Your task to perform on an android device: open app "Roku - Official Remote Control" Image 0: 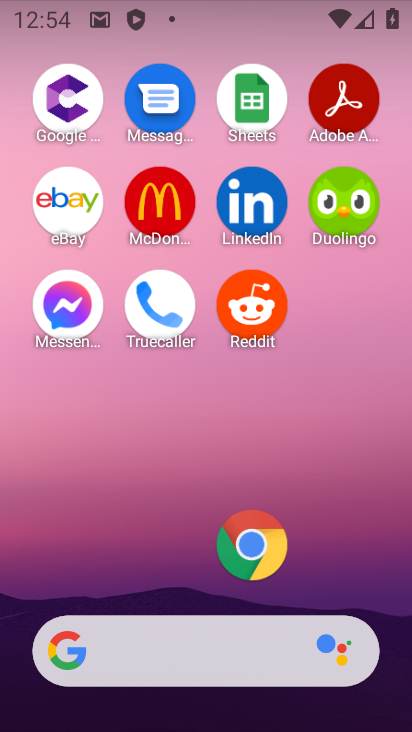
Step 0: drag from (119, 546) to (211, 23)
Your task to perform on an android device: open app "Roku - Official Remote Control" Image 1: 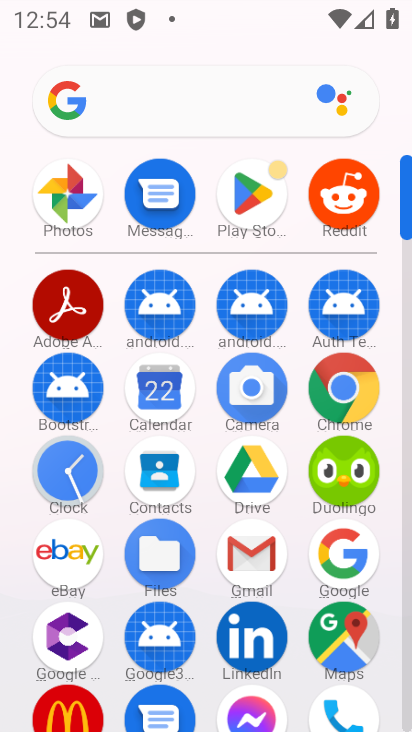
Step 1: click (244, 182)
Your task to perform on an android device: open app "Roku - Official Remote Control" Image 2: 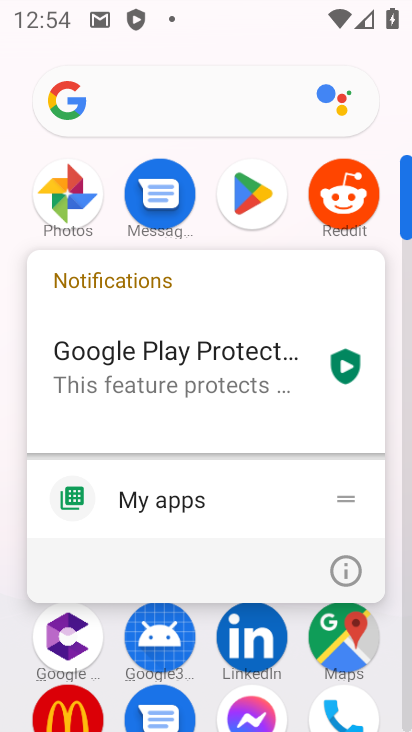
Step 2: click (254, 193)
Your task to perform on an android device: open app "Roku - Official Remote Control" Image 3: 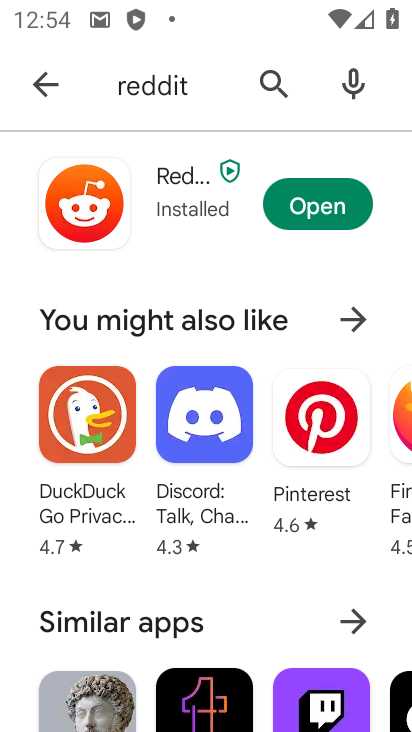
Step 3: click (274, 67)
Your task to perform on an android device: open app "Roku - Official Remote Control" Image 4: 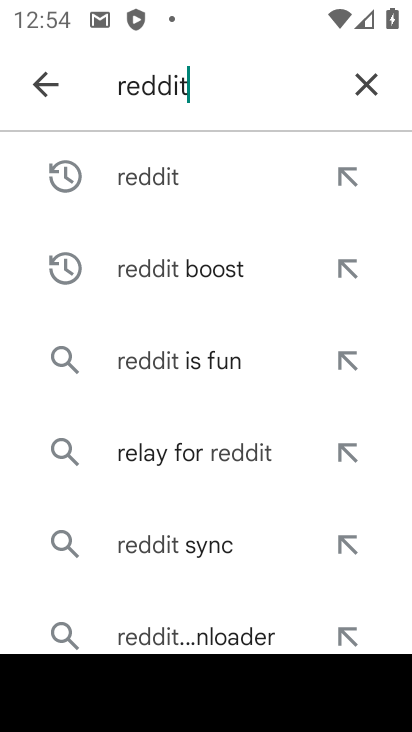
Step 4: click (371, 80)
Your task to perform on an android device: open app "Roku - Official Remote Control" Image 5: 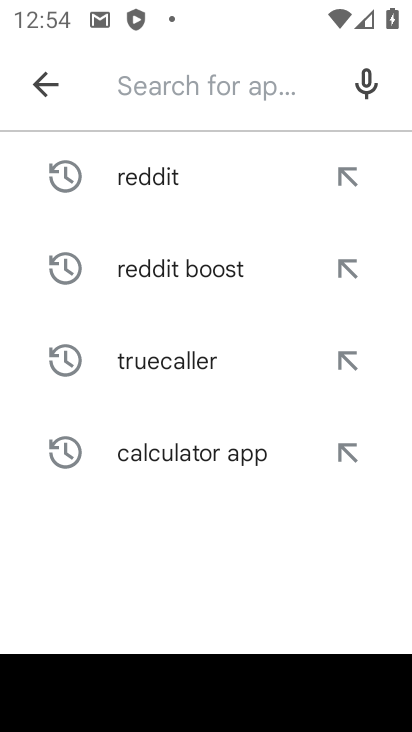
Step 5: click (161, 91)
Your task to perform on an android device: open app "Roku - Official Remote Control" Image 6: 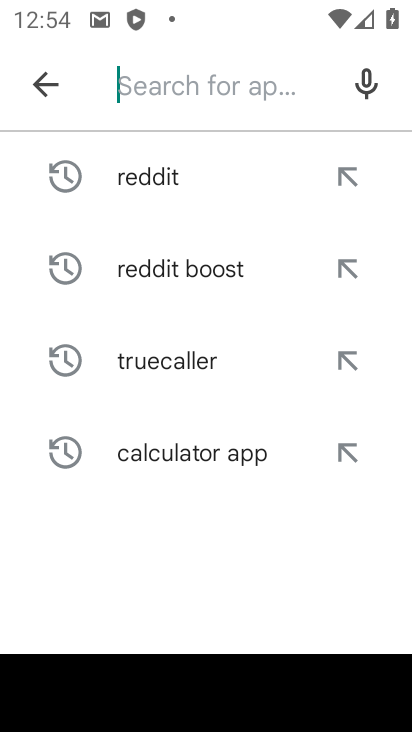
Step 6: type "roku"
Your task to perform on an android device: open app "Roku - Official Remote Control" Image 7: 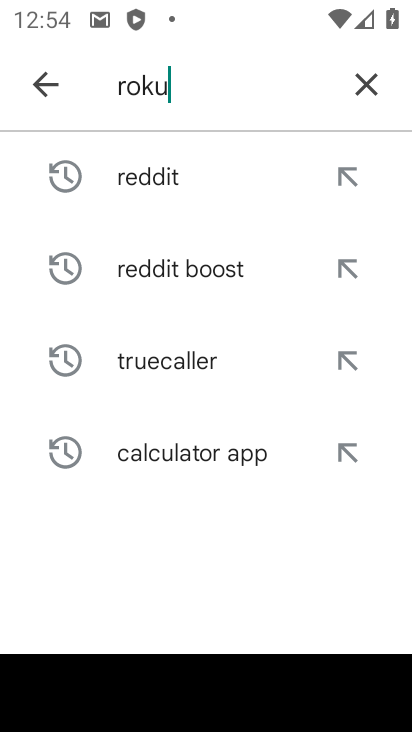
Step 7: click (170, 82)
Your task to perform on an android device: open app "Roku - Official Remote Control" Image 8: 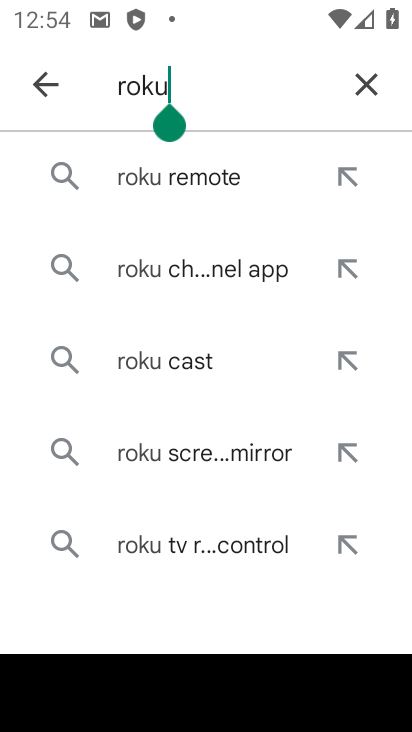
Step 8: click (191, 164)
Your task to perform on an android device: open app "Roku - Official Remote Control" Image 9: 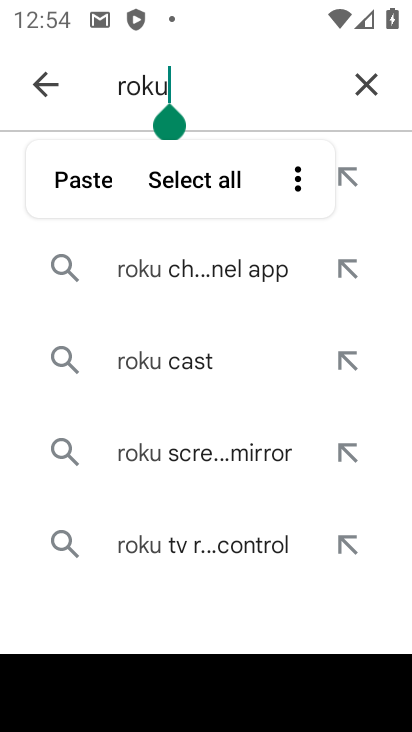
Step 9: click (191, 237)
Your task to perform on an android device: open app "Roku - Official Remote Control" Image 10: 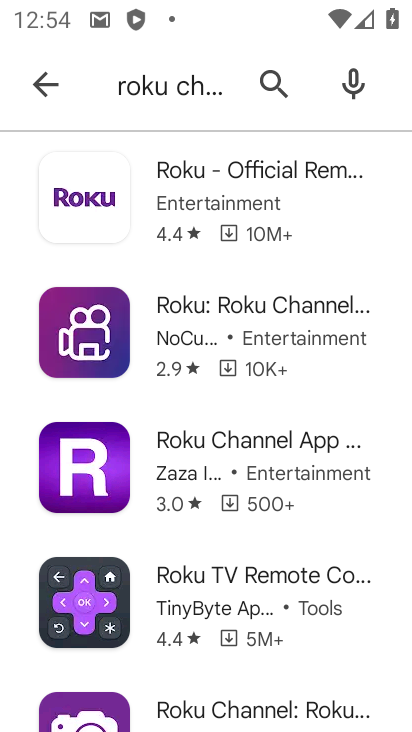
Step 10: click (268, 144)
Your task to perform on an android device: open app "Roku - Official Remote Control" Image 11: 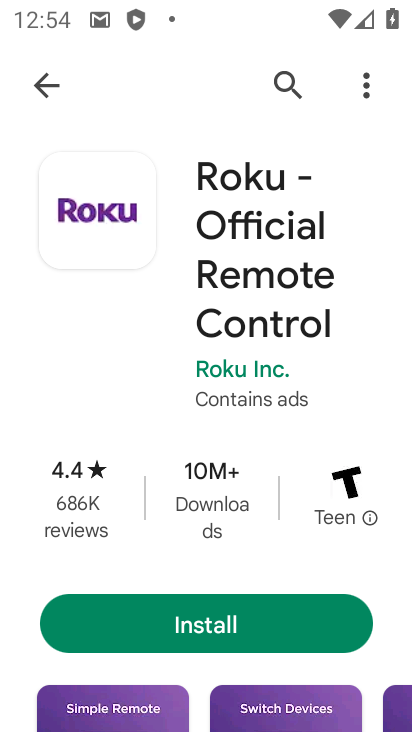
Step 11: task complete